Your task to perform on an android device: Open Amazon Image 0: 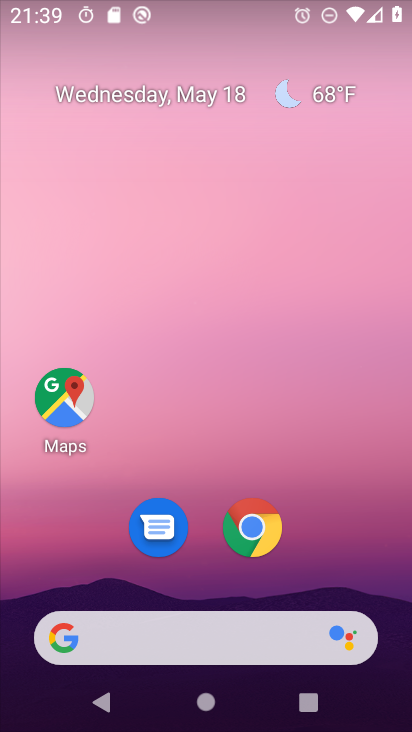
Step 0: click (251, 526)
Your task to perform on an android device: Open Amazon Image 1: 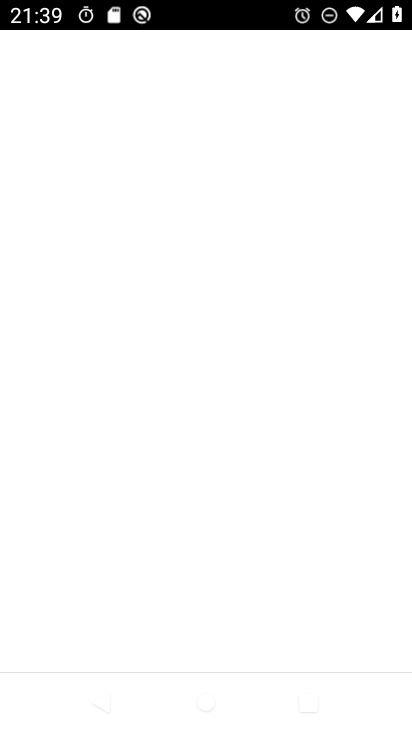
Step 1: click (251, 525)
Your task to perform on an android device: Open Amazon Image 2: 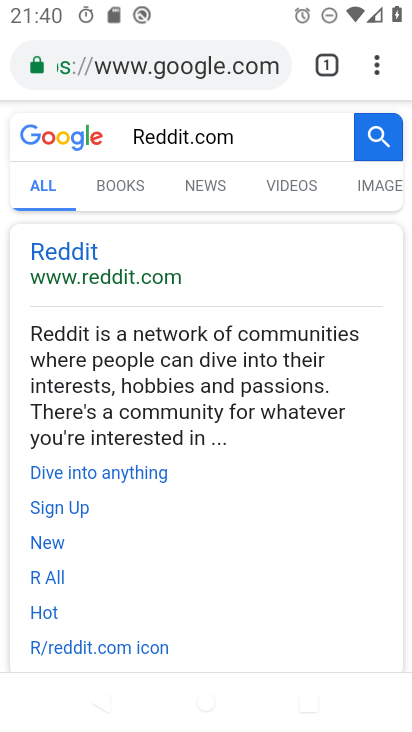
Step 2: click (275, 72)
Your task to perform on an android device: Open Amazon Image 3: 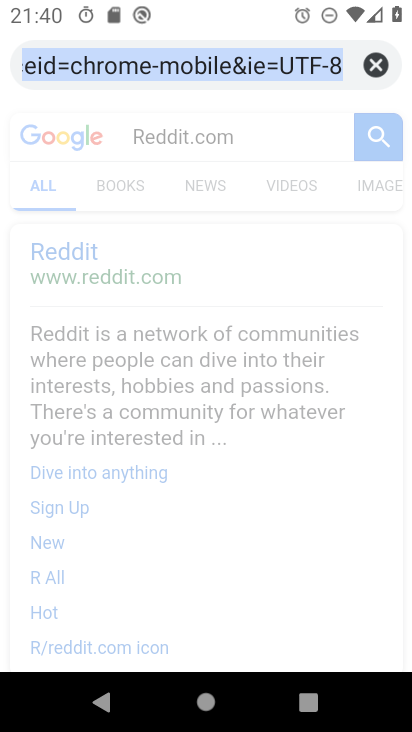
Step 3: click (380, 66)
Your task to perform on an android device: Open Amazon Image 4: 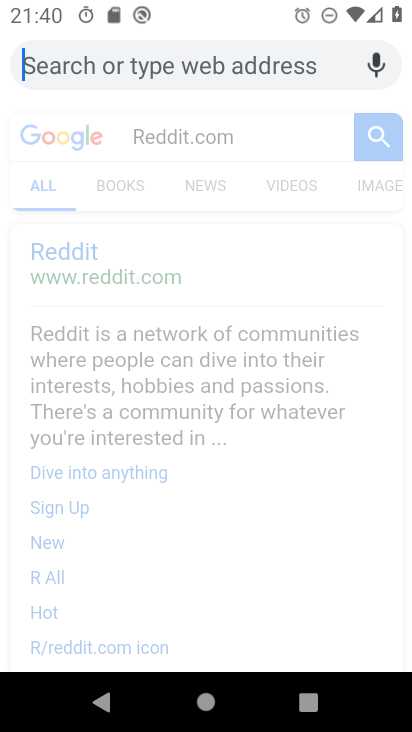
Step 4: type " Amazon"
Your task to perform on an android device: Open Amazon Image 5: 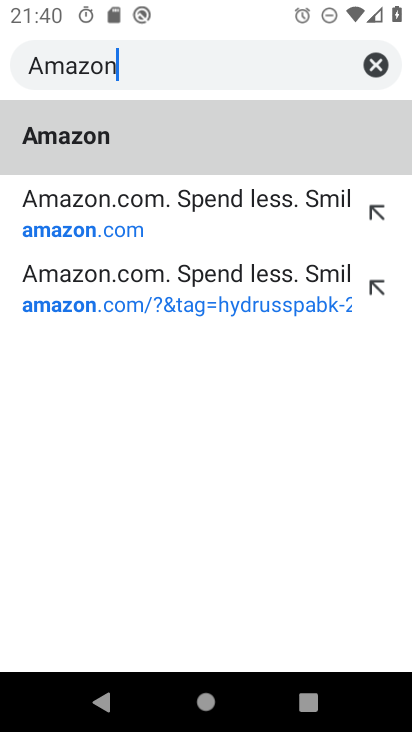
Step 5: click (56, 137)
Your task to perform on an android device: Open Amazon Image 6: 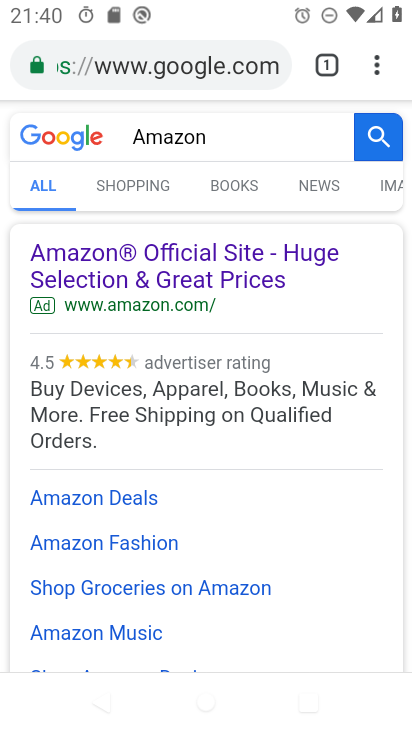
Step 6: task complete